Your task to perform on an android device: Do I have any events tomorrow? Image 0: 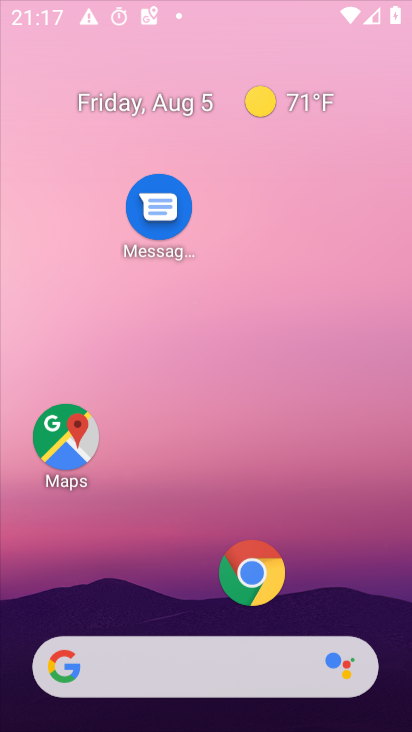
Step 0: press home button
Your task to perform on an android device: Do I have any events tomorrow? Image 1: 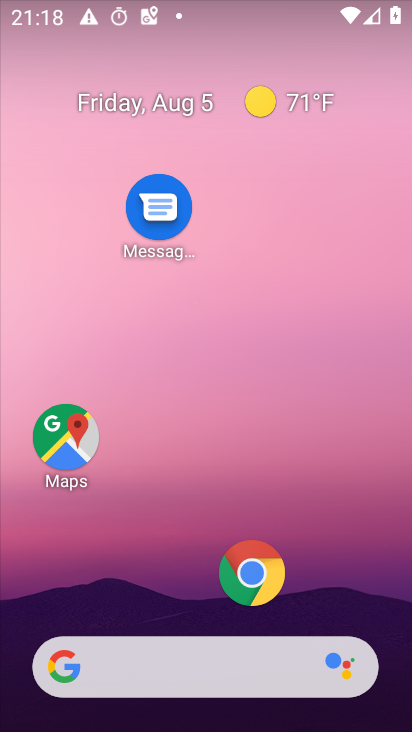
Step 1: drag from (195, 615) to (226, 60)
Your task to perform on an android device: Do I have any events tomorrow? Image 2: 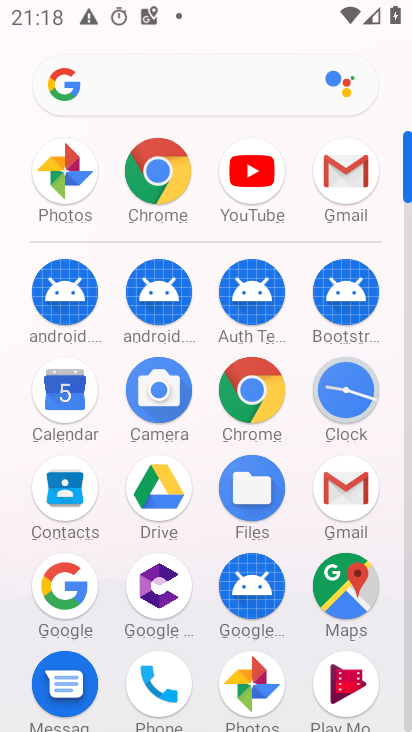
Step 2: click (63, 387)
Your task to perform on an android device: Do I have any events tomorrow? Image 3: 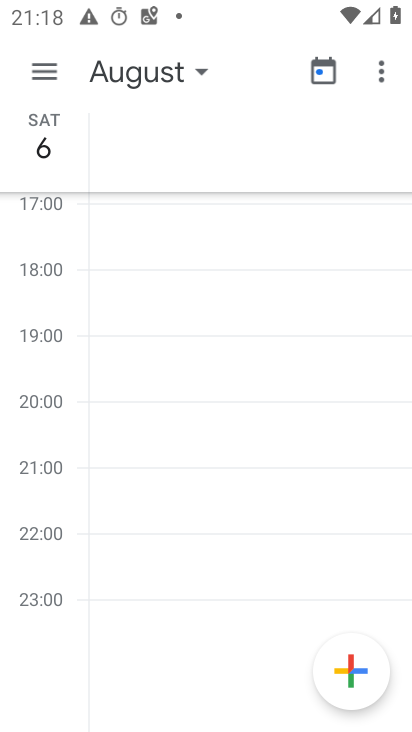
Step 3: click (197, 65)
Your task to perform on an android device: Do I have any events tomorrow? Image 4: 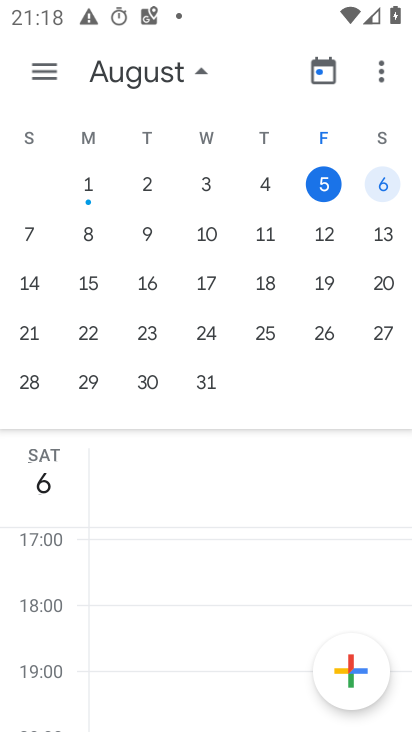
Step 4: click (381, 182)
Your task to perform on an android device: Do I have any events tomorrow? Image 5: 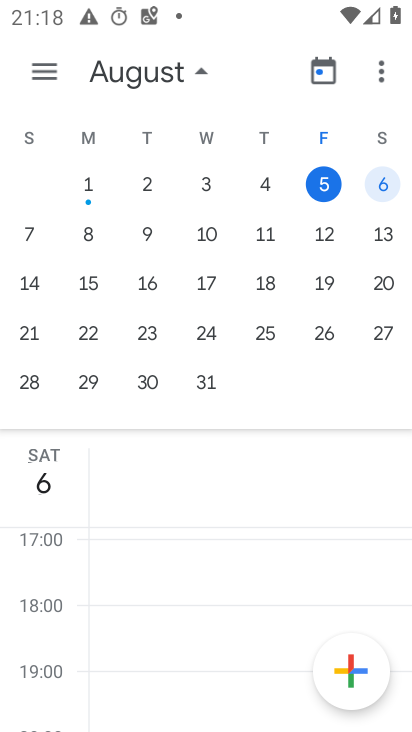
Step 5: click (50, 70)
Your task to perform on an android device: Do I have any events tomorrow? Image 6: 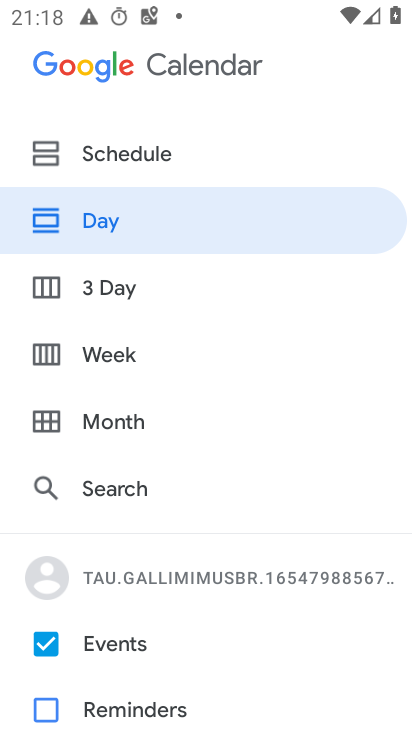
Step 6: click (100, 153)
Your task to perform on an android device: Do I have any events tomorrow? Image 7: 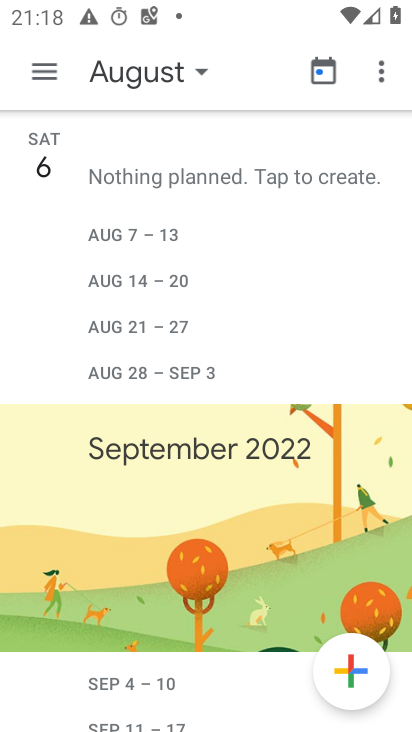
Step 7: click (60, 152)
Your task to perform on an android device: Do I have any events tomorrow? Image 8: 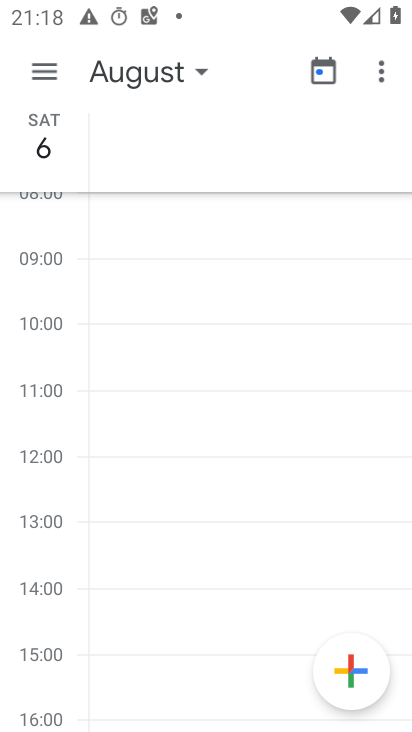
Step 8: task complete